Your task to perform on an android device: refresh tabs in the chrome app Image 0: 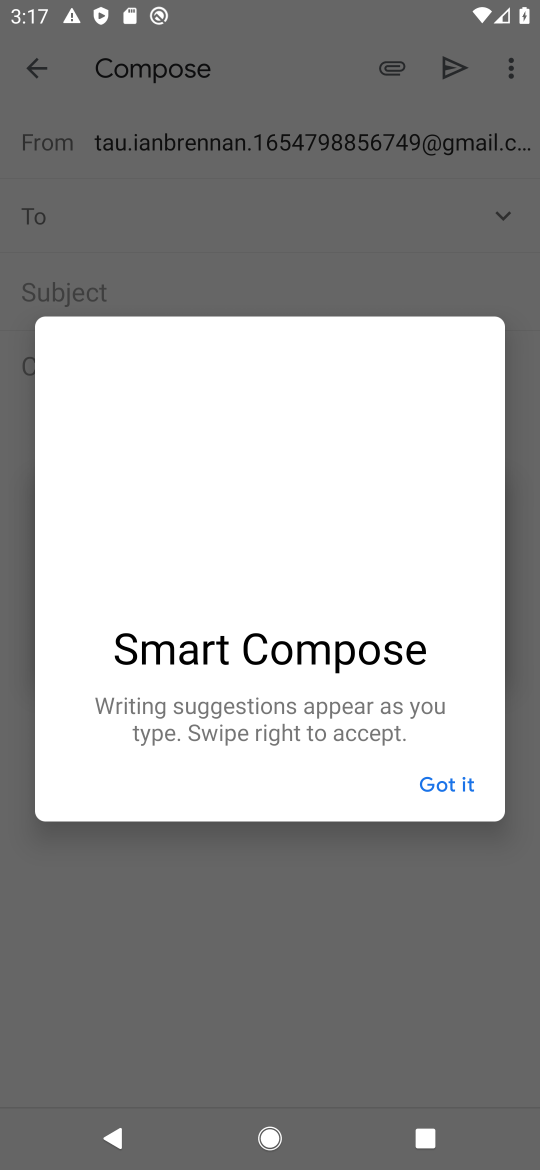
Step 0: press home button
Your task to perform on an android device: refresh tabs in the chrome app Image 1: 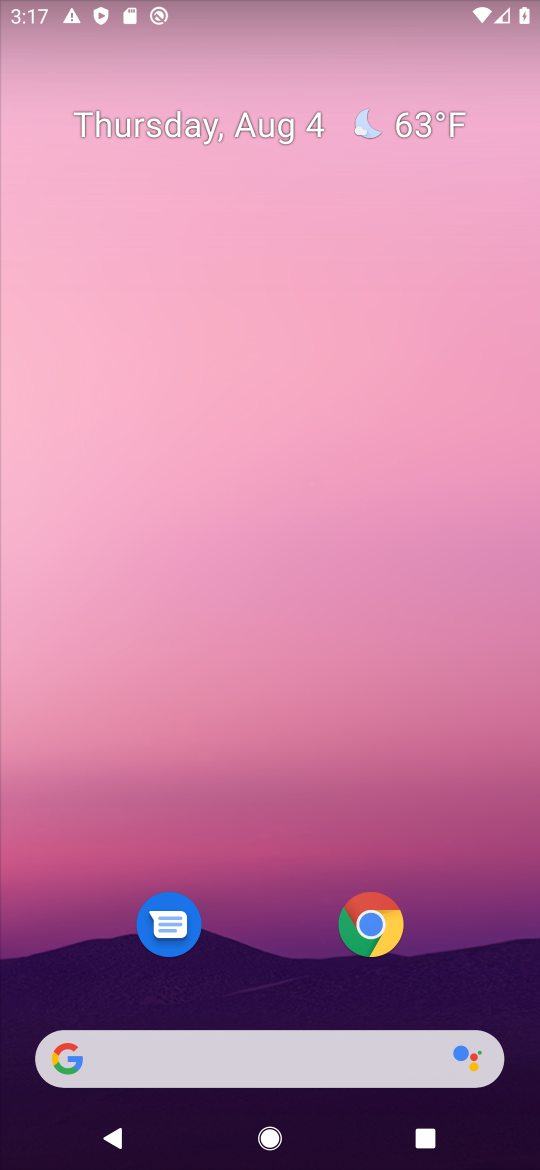
Step 1: click (379, 927)
Your task to perform on an android device: refresh tabs in the chrome app Image 2: 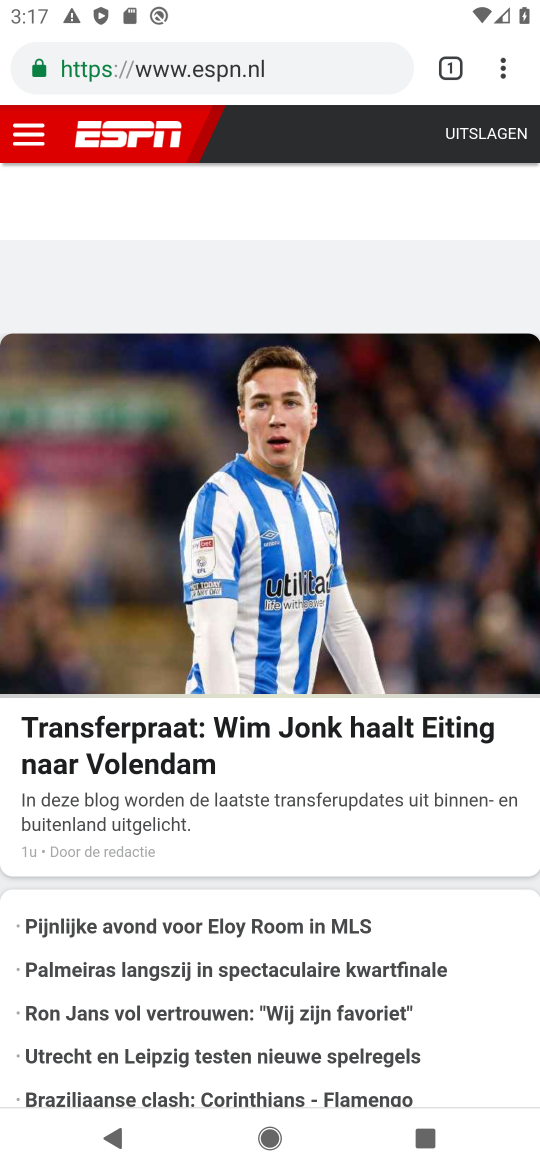
Step 2: click (506, 68)
Your task to perform on an android device: refresh tabs in the chrome app Image 3: 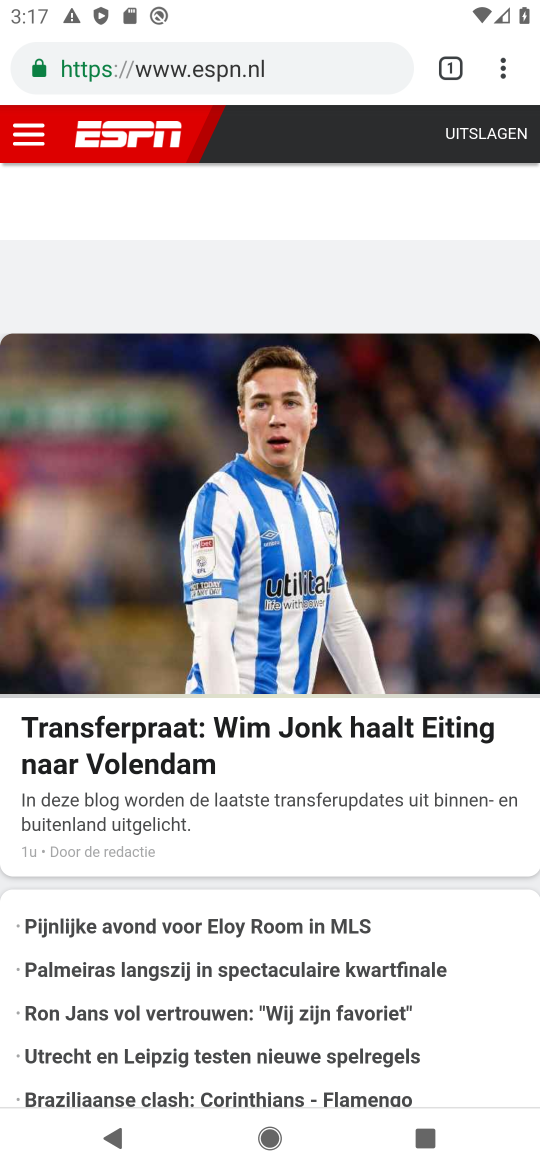
Step 3: click (510, 67)
Your task to perform on an android device: refresh tabs in the chrome app Image 4: 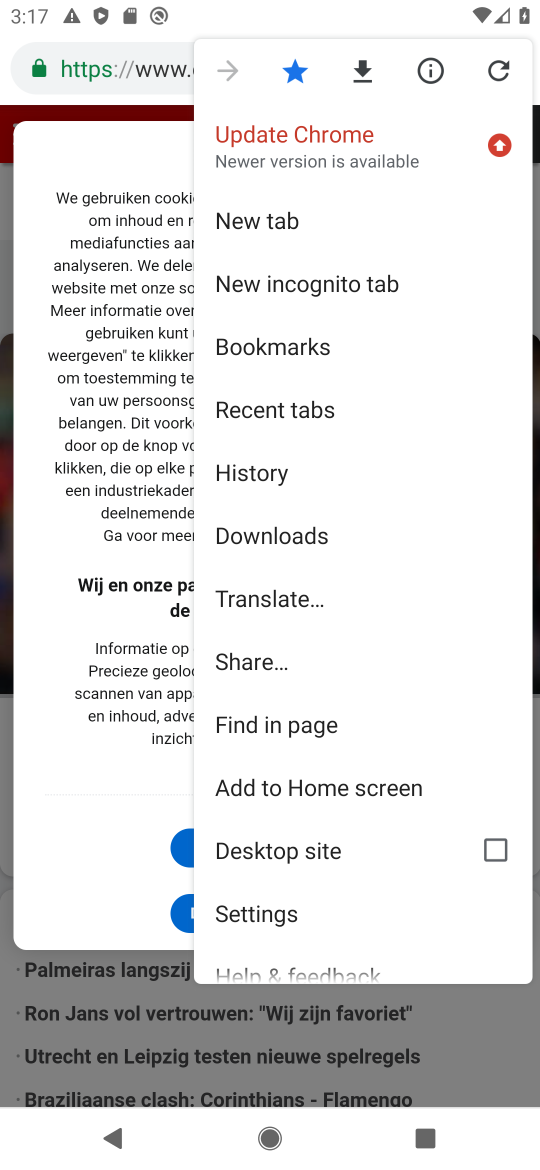
Step 4: click (486, 71)
Your task to perform on an android device: refresh tabs in the chrome app Image 5: 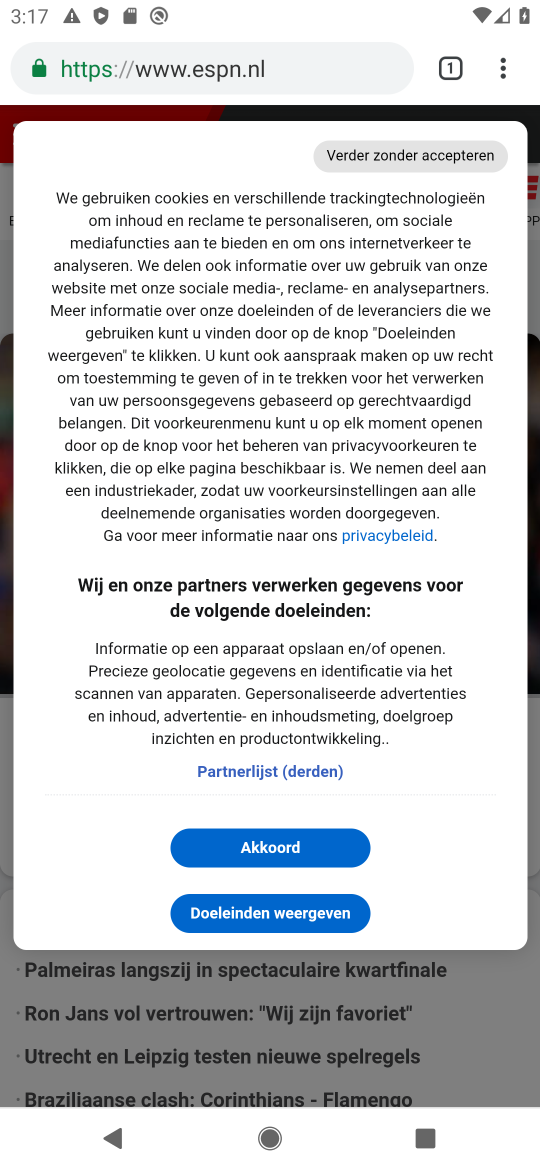
Step 5: task complete